Your task to perform on an android device: delete location history Image 0: 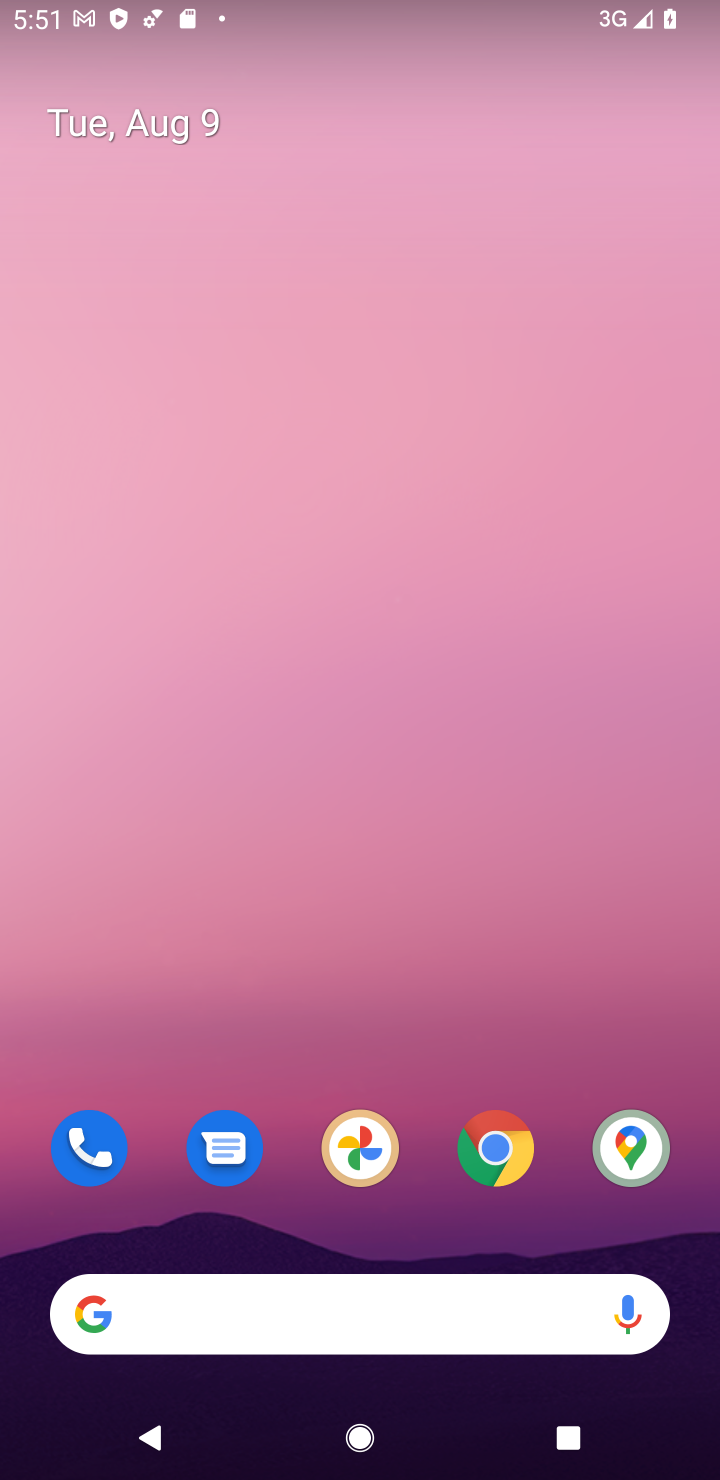
Step 0: drag from (415, 1251) to (446, 458)
Your task to perform on an android device: delete location history Image 1: 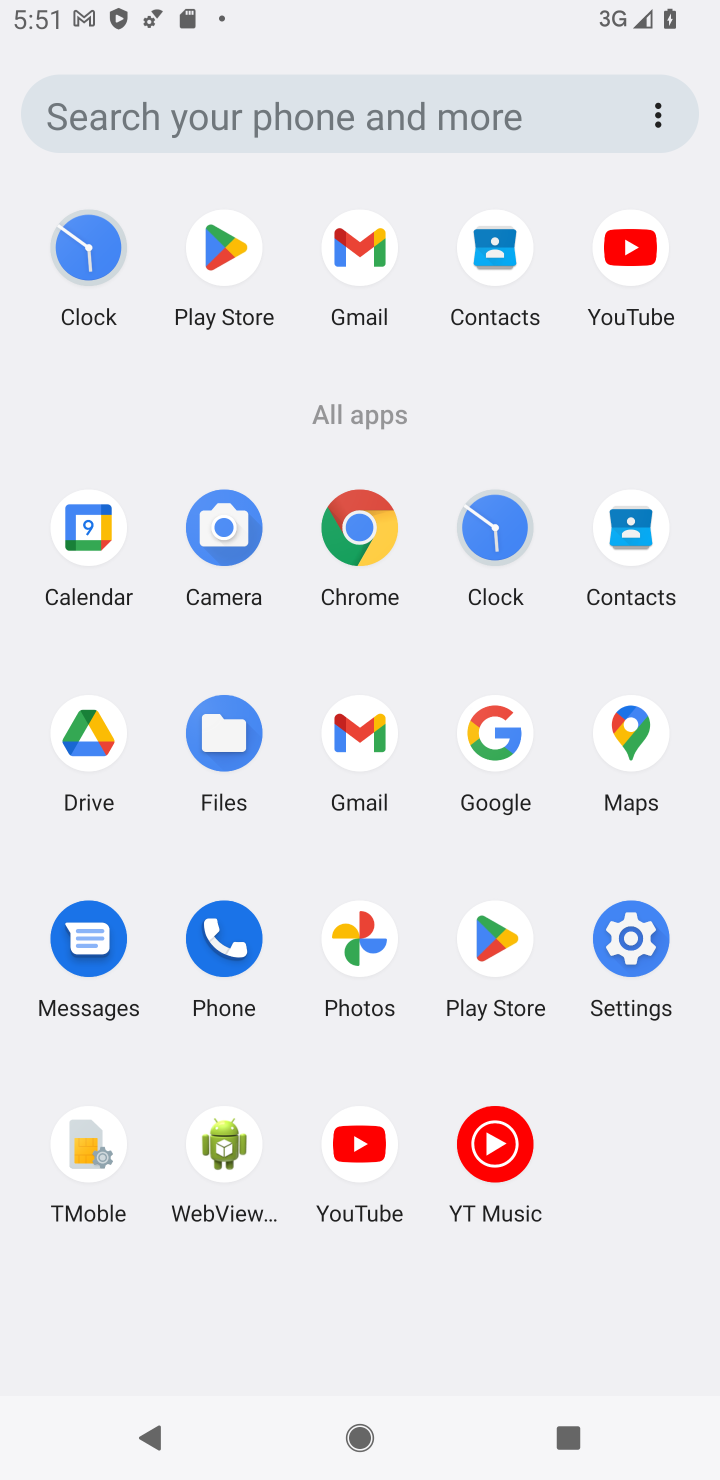
Step 1: click (608, 737)
Your task to perform on an android device: delete location history Image 2: 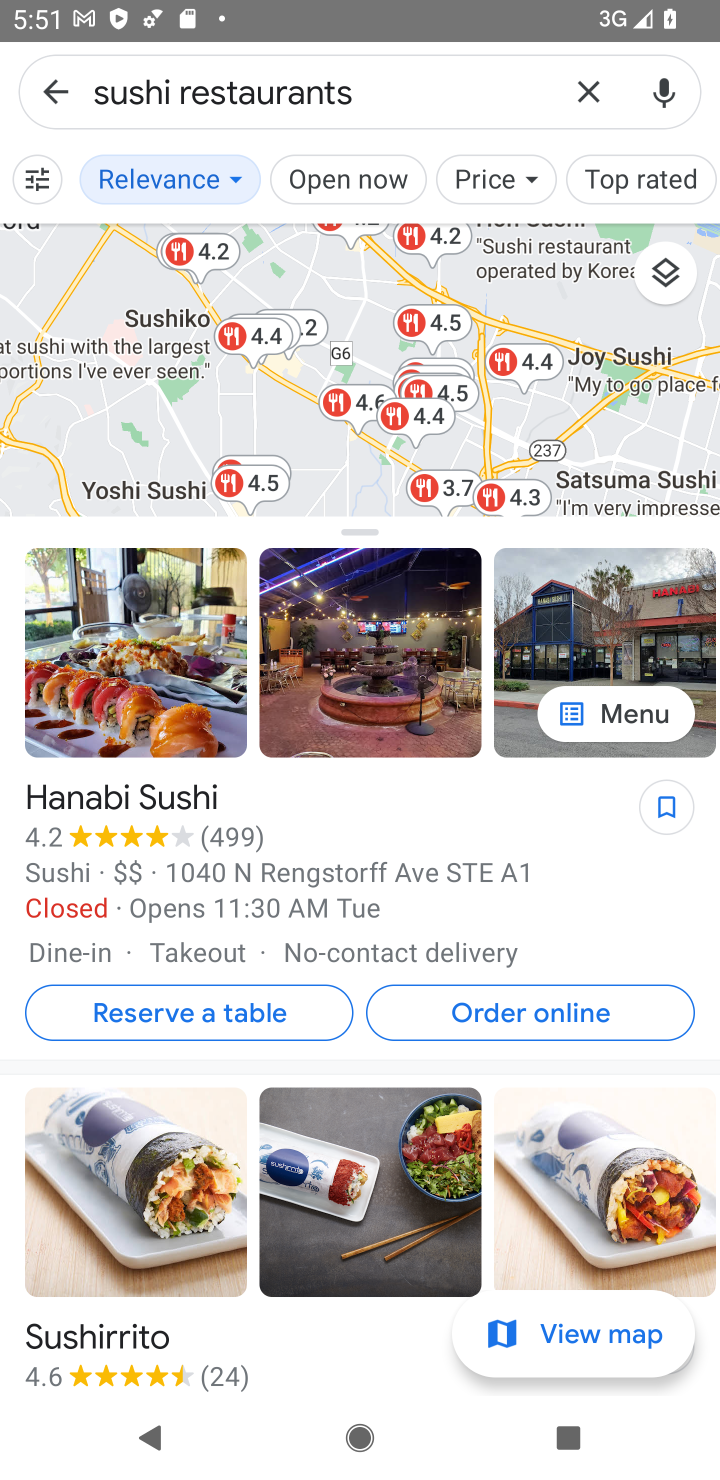
Step 2: click (52, 77)
Your task to perform on an android device: delete location history Image 3: 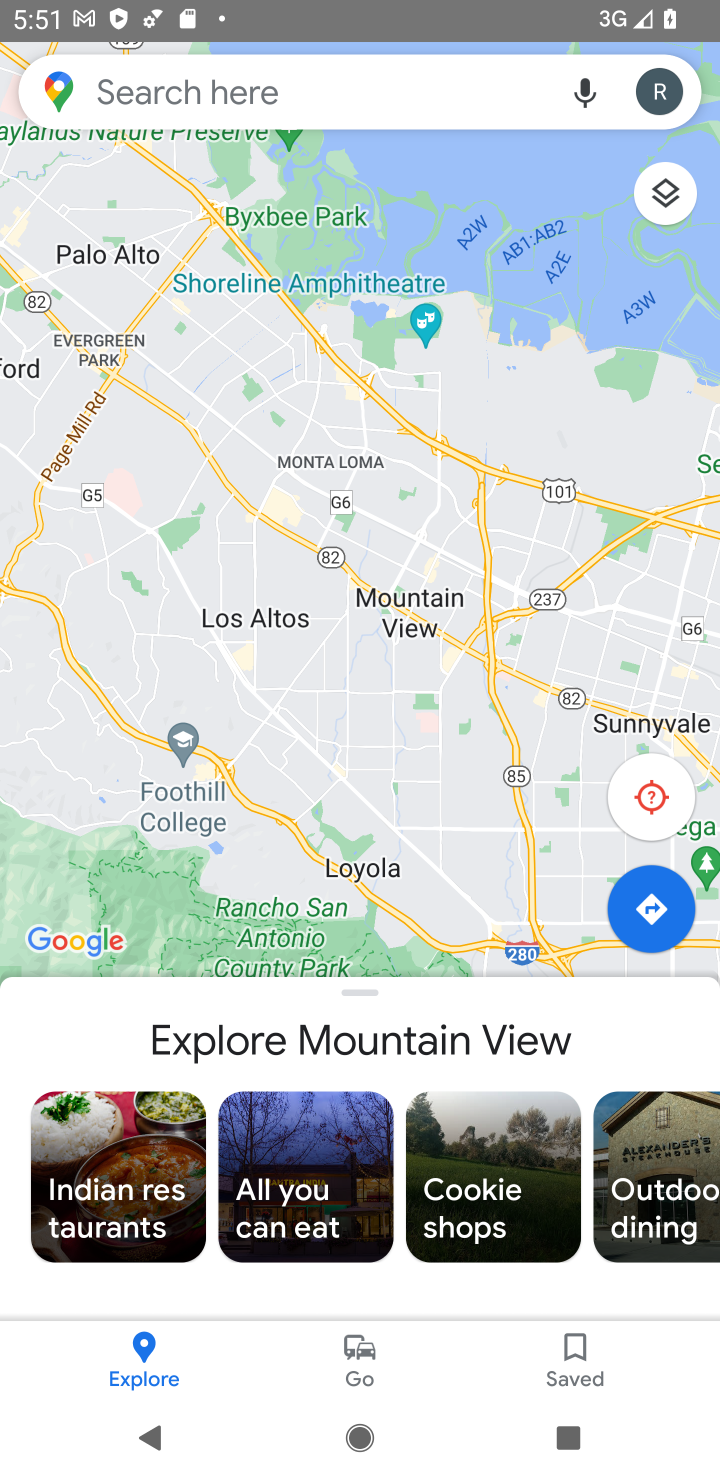
Step 3: click (346, 1352)
Your task to perform on an android device: delete location history Image 4: 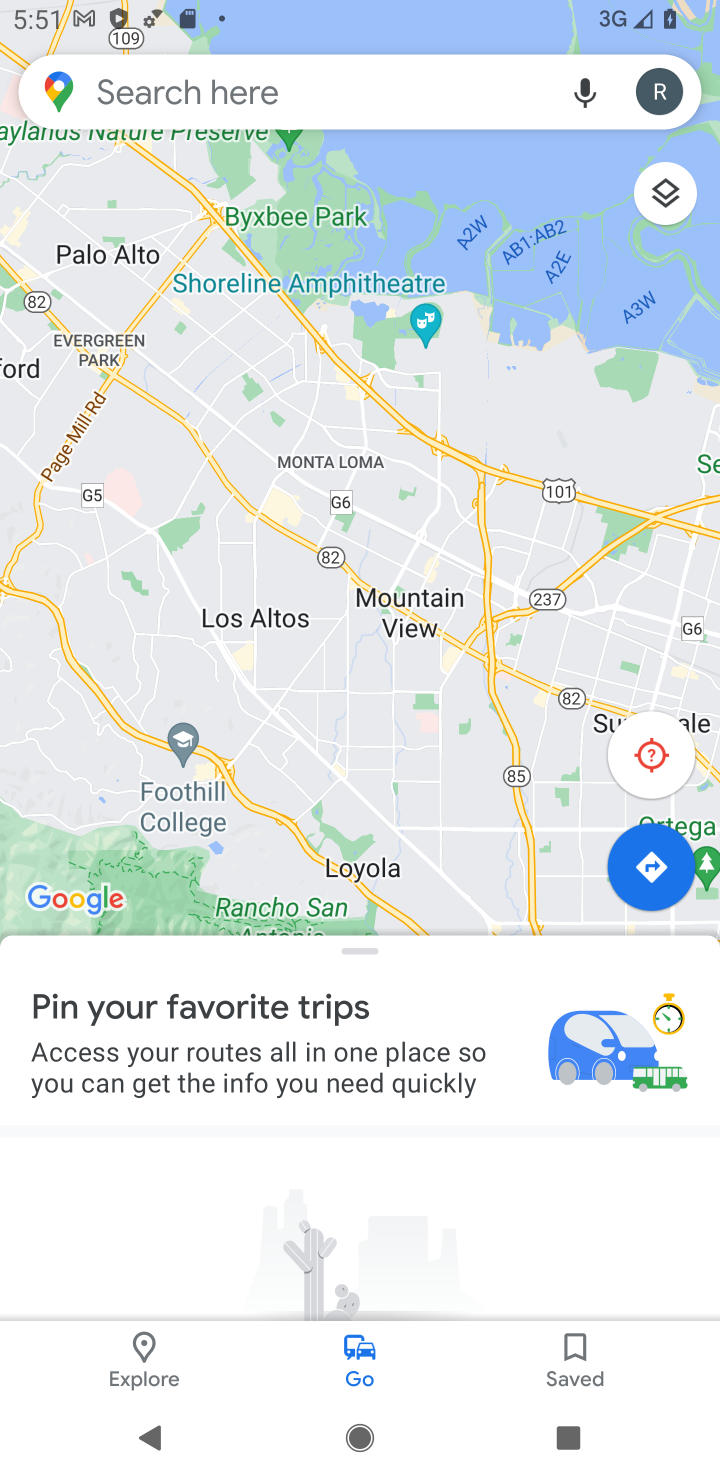
Step 4: drag from (348, 1131) to (384, 882)
Your task to perform on an android device: delete location history Image 5: 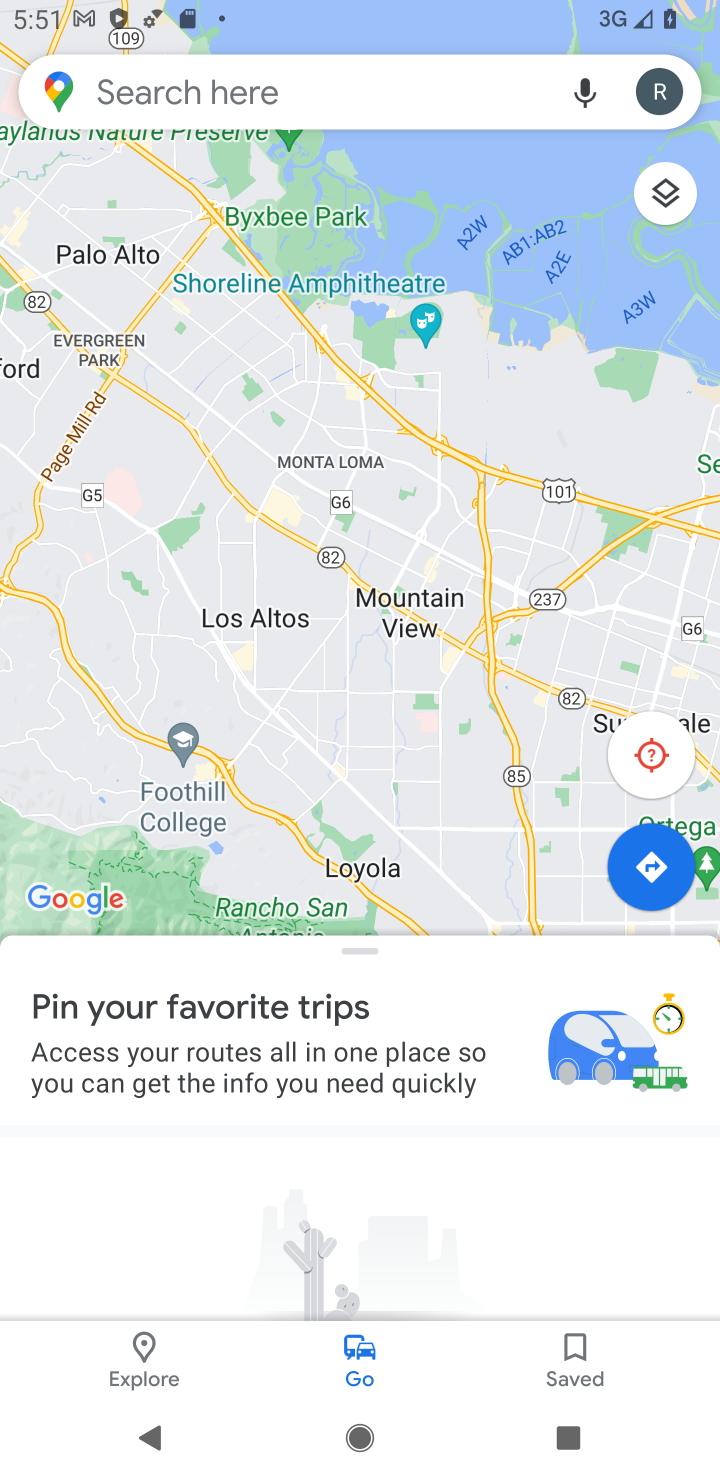
Step 5: click (582, 1355)
Your task to perform on an android device: delete location history Image 6: 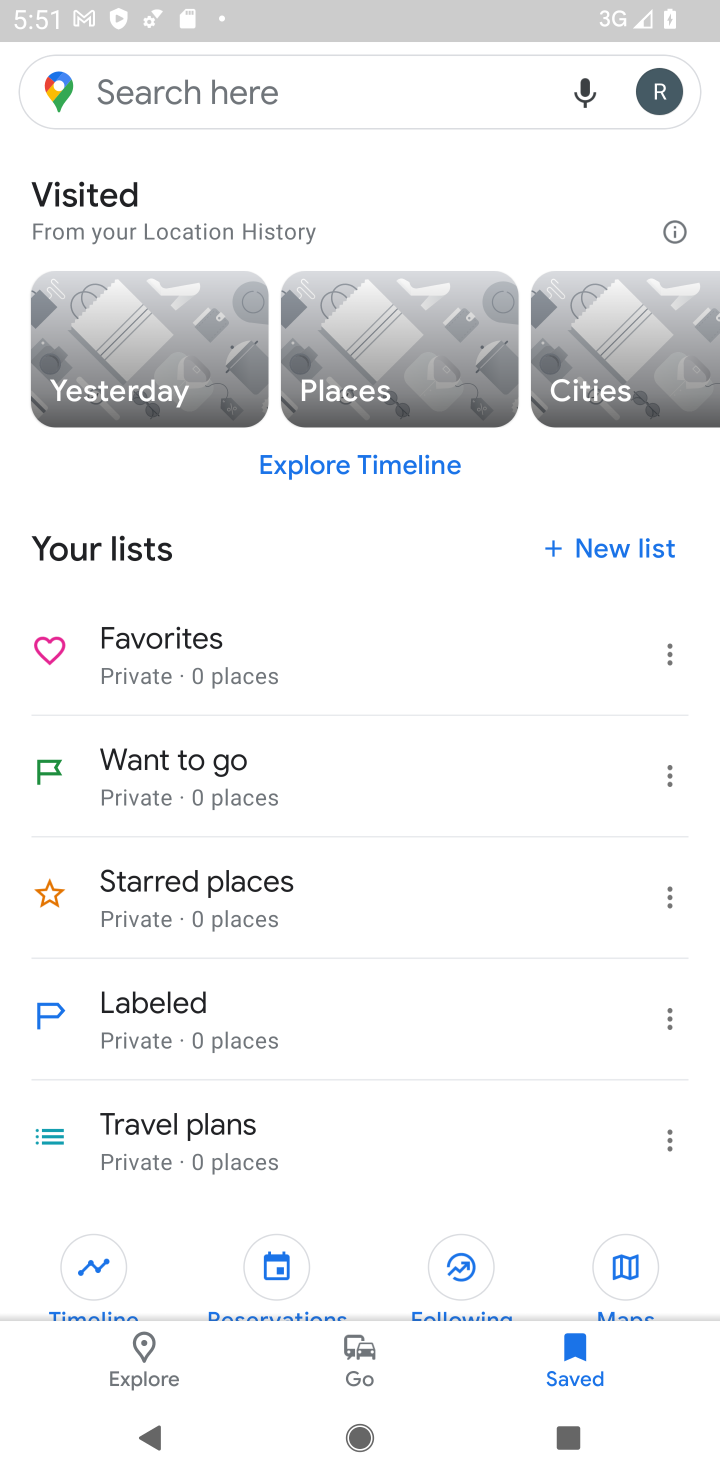
Step 6: drag from (314, 1068) to (332, 571)
Your task to perform on an android device: delete location history Image 7: 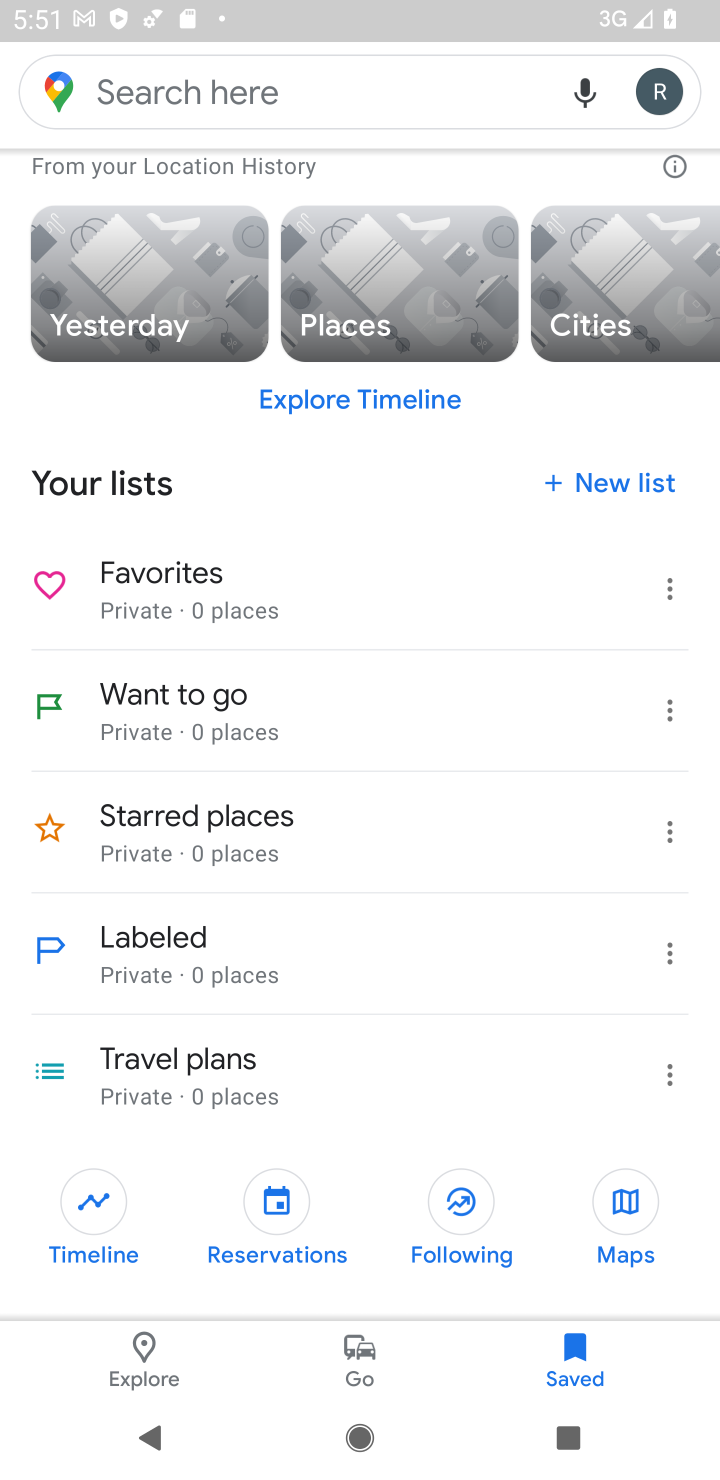
Step 7: click (77, 1219)
Your task to perform on an android device: delete location history Image 8: 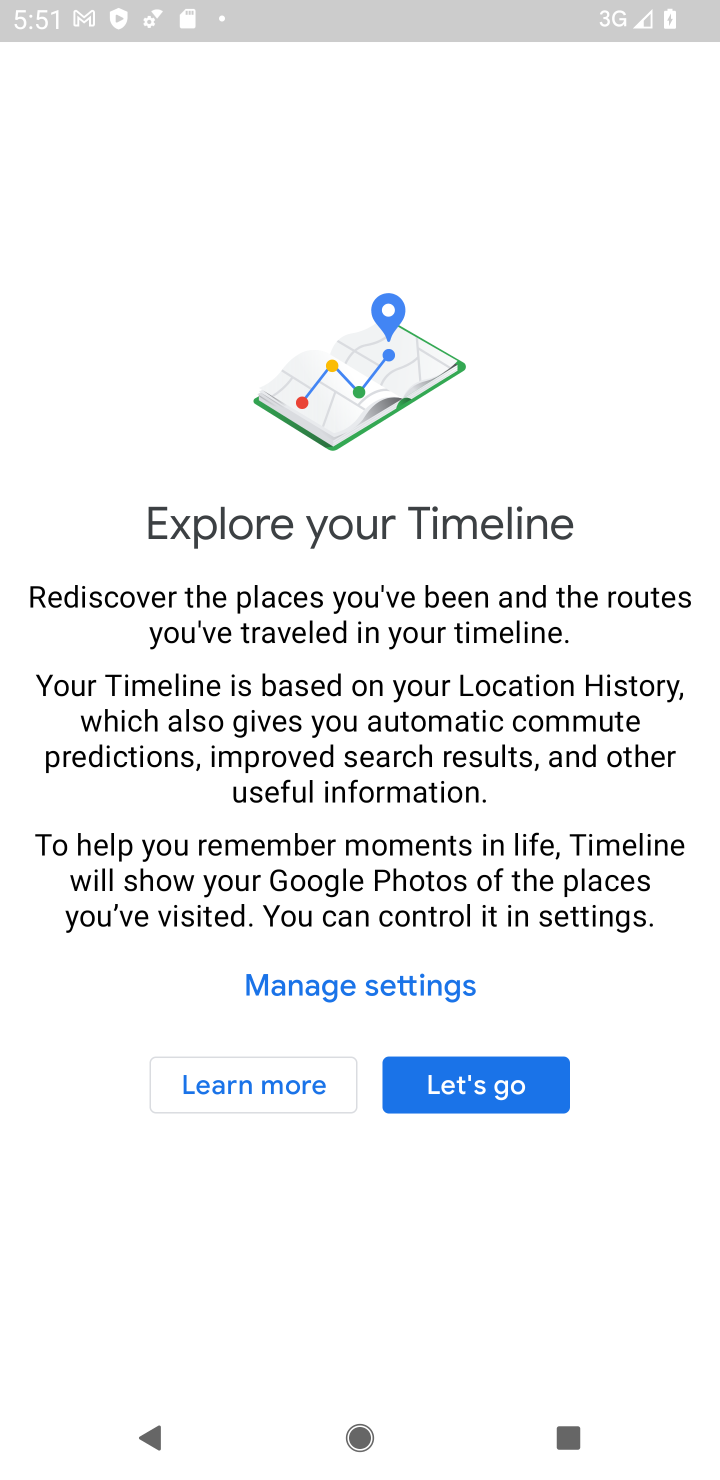
Step 8: click (471, 1096)
Your task to perform on an android device: delete location history Image 9: 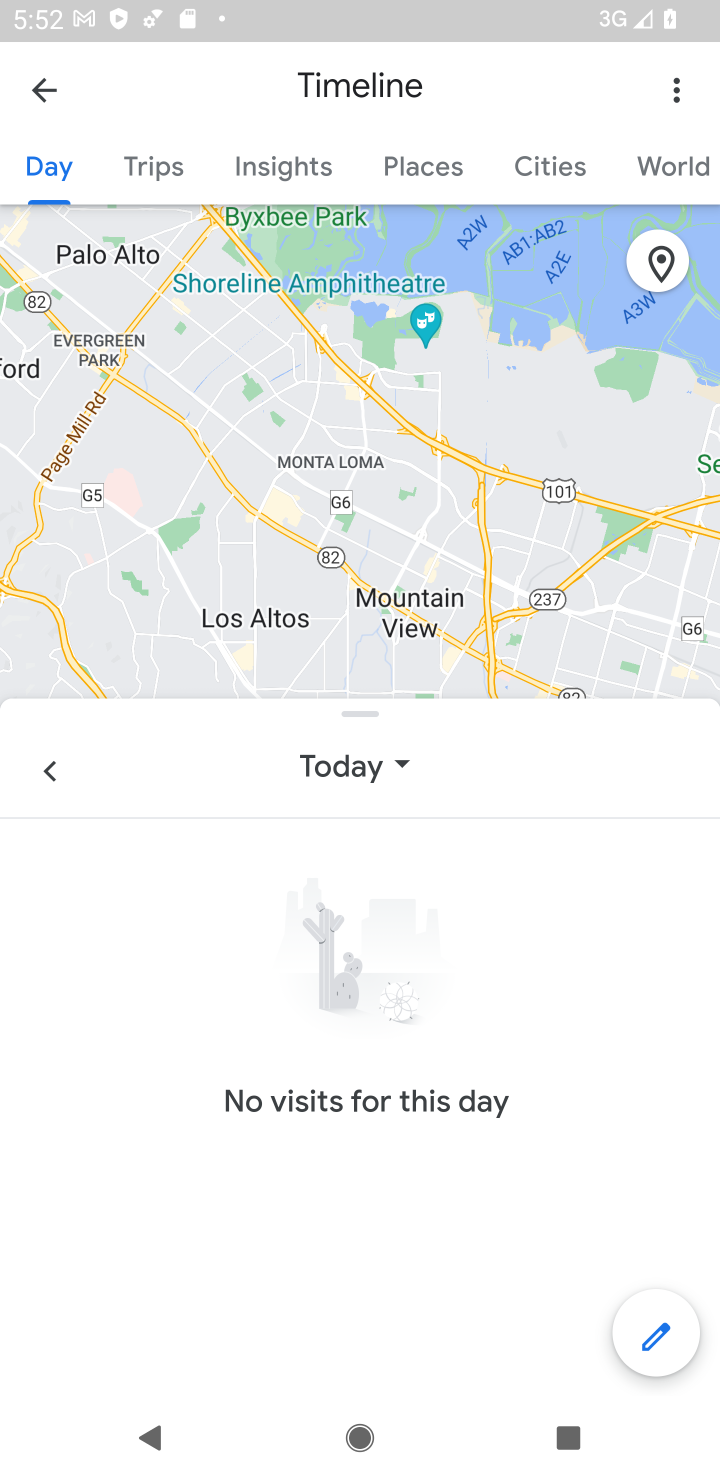
Step 9: click (671, 93)
Your task to perform on an android device: delete location history Image 10: 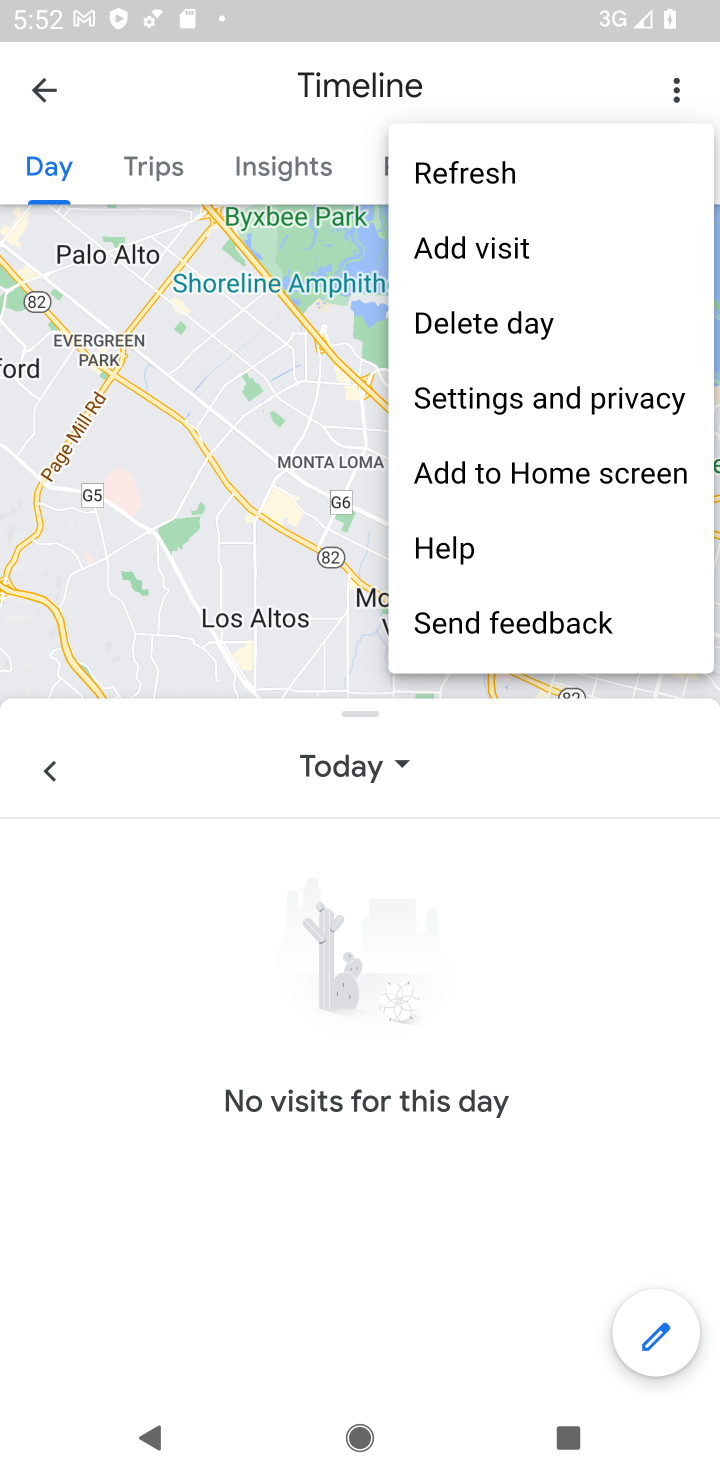
Step 10: click (513, 634)
Your task to perform on an android device: delete location history Image 11: 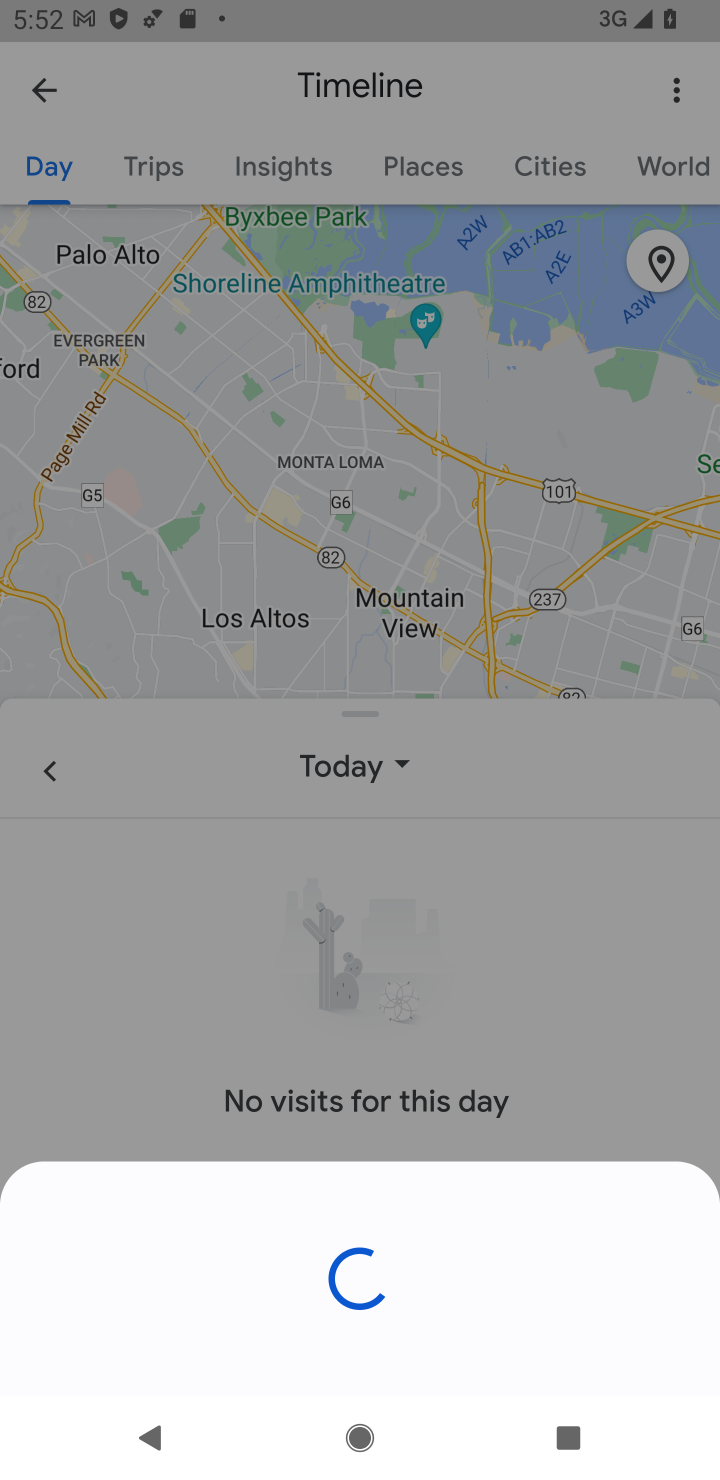
Step 11: click (56, 87)
Your task to perform on an android device: delete location history Image 12: 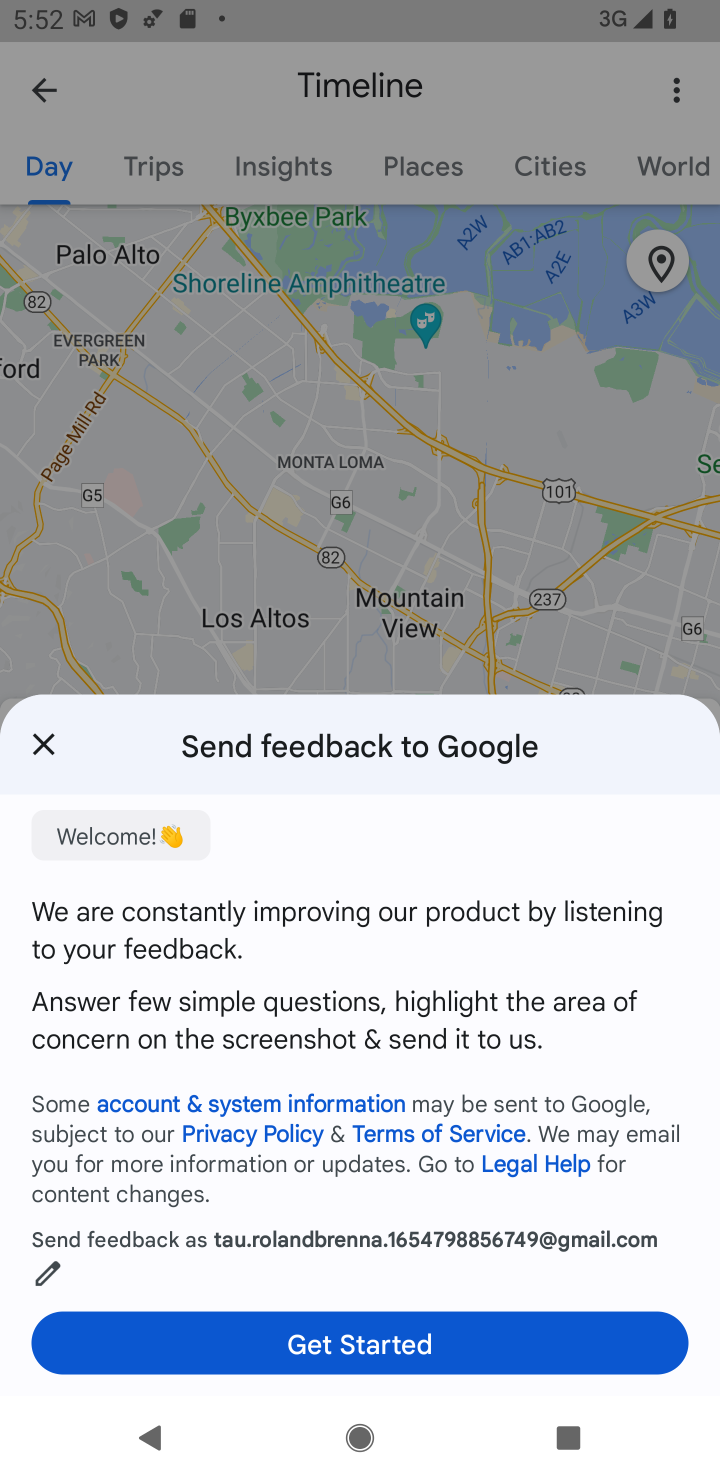
Step 12: click (28, 734)
Your task to perform on an android device: delete location history Image 13: 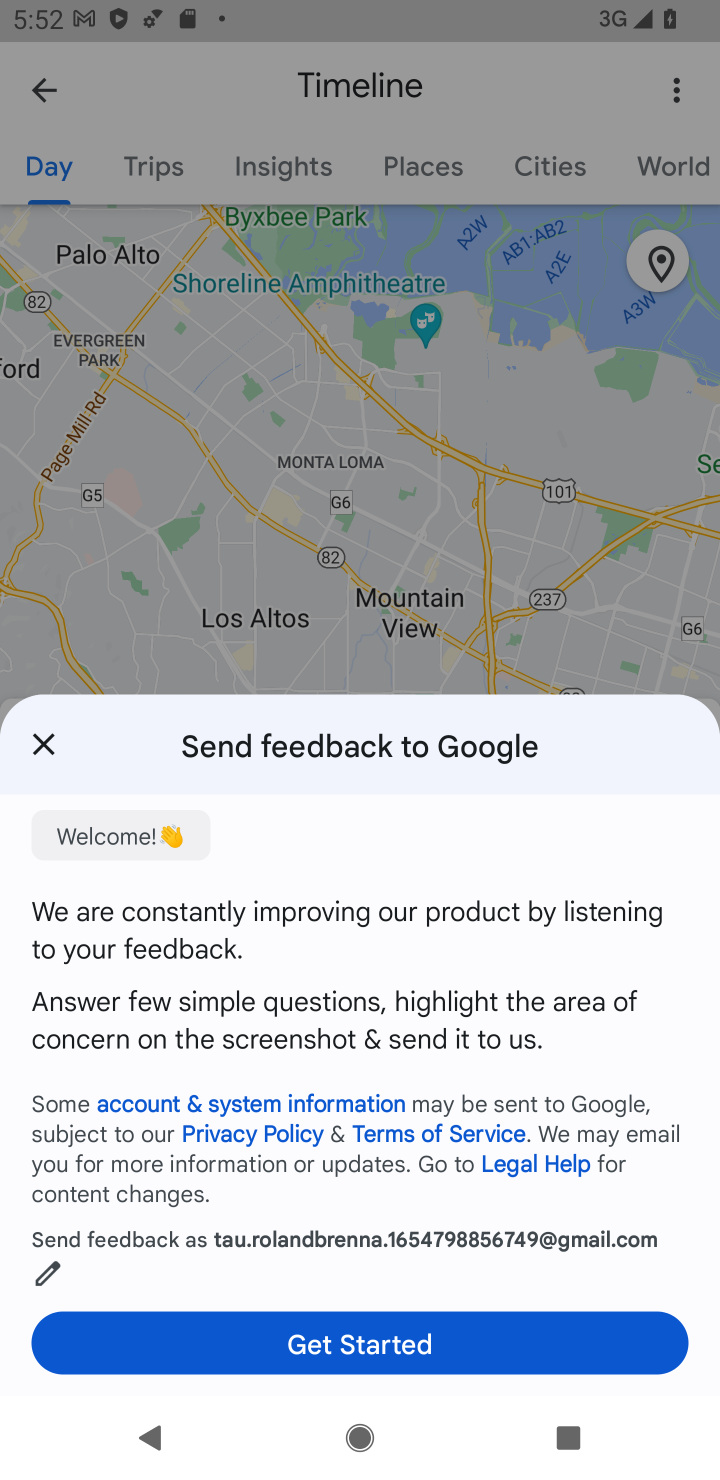
Step 13: click (46, 740)
Your task to perform on an android device: delete location history Image 14: 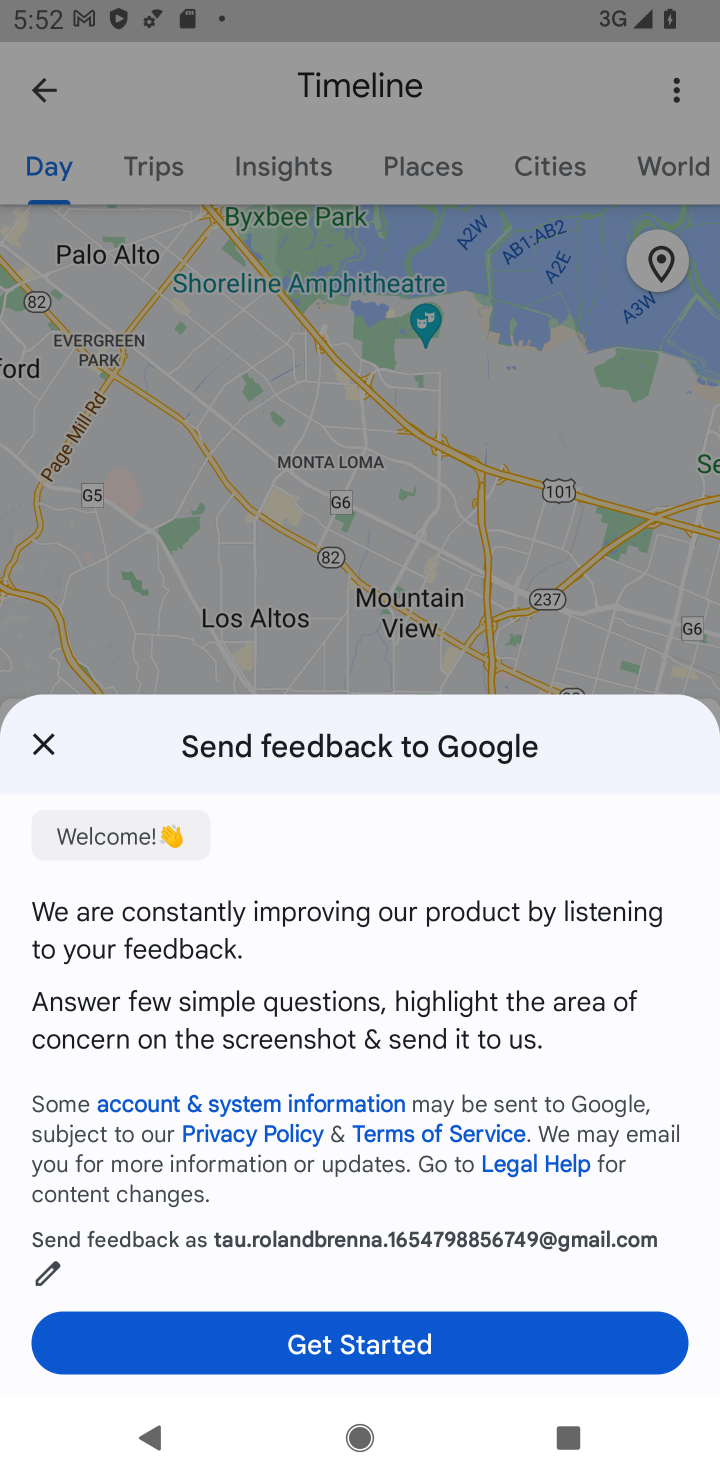
Step 14: press back button
Your task to perform on an android device: delete location history Image 15: 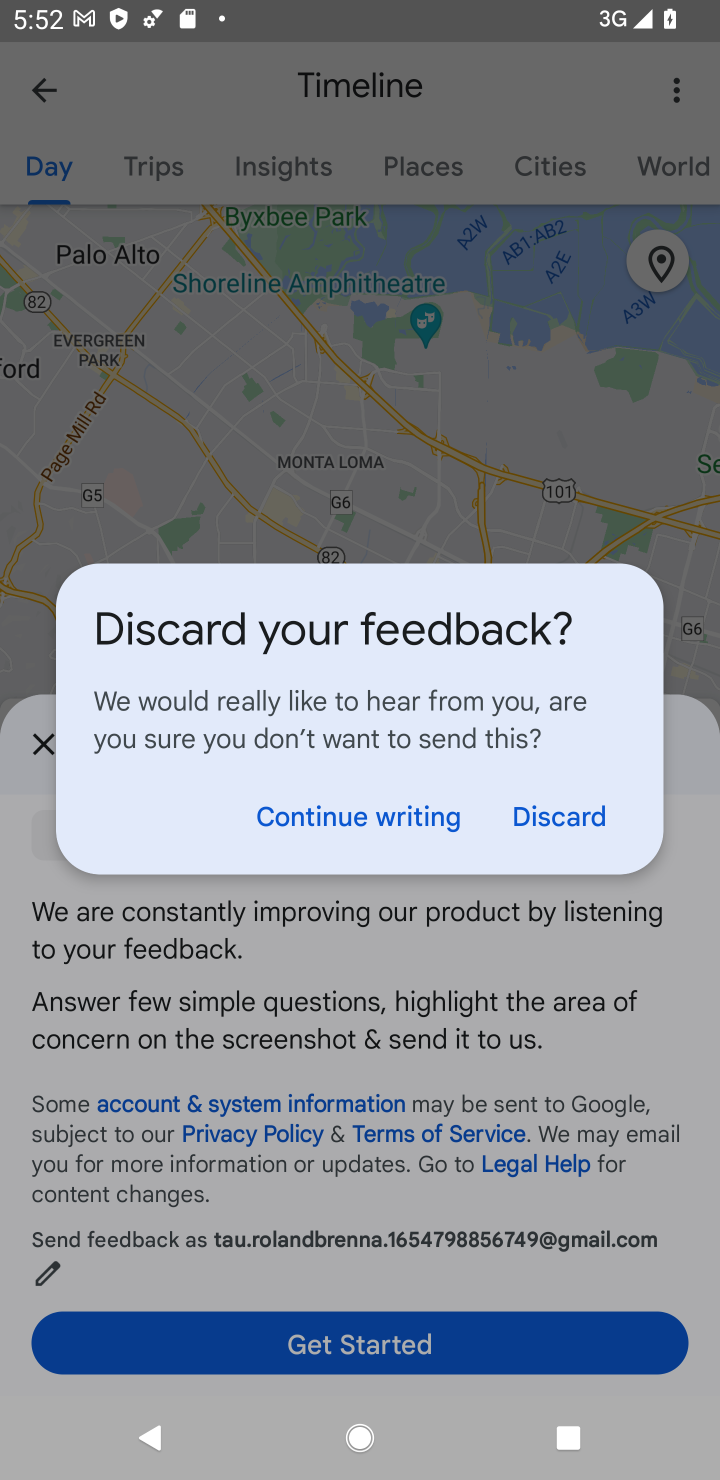
Step 15: click (563, 796)
Your task to perform on an android device: delete location history Image 16: 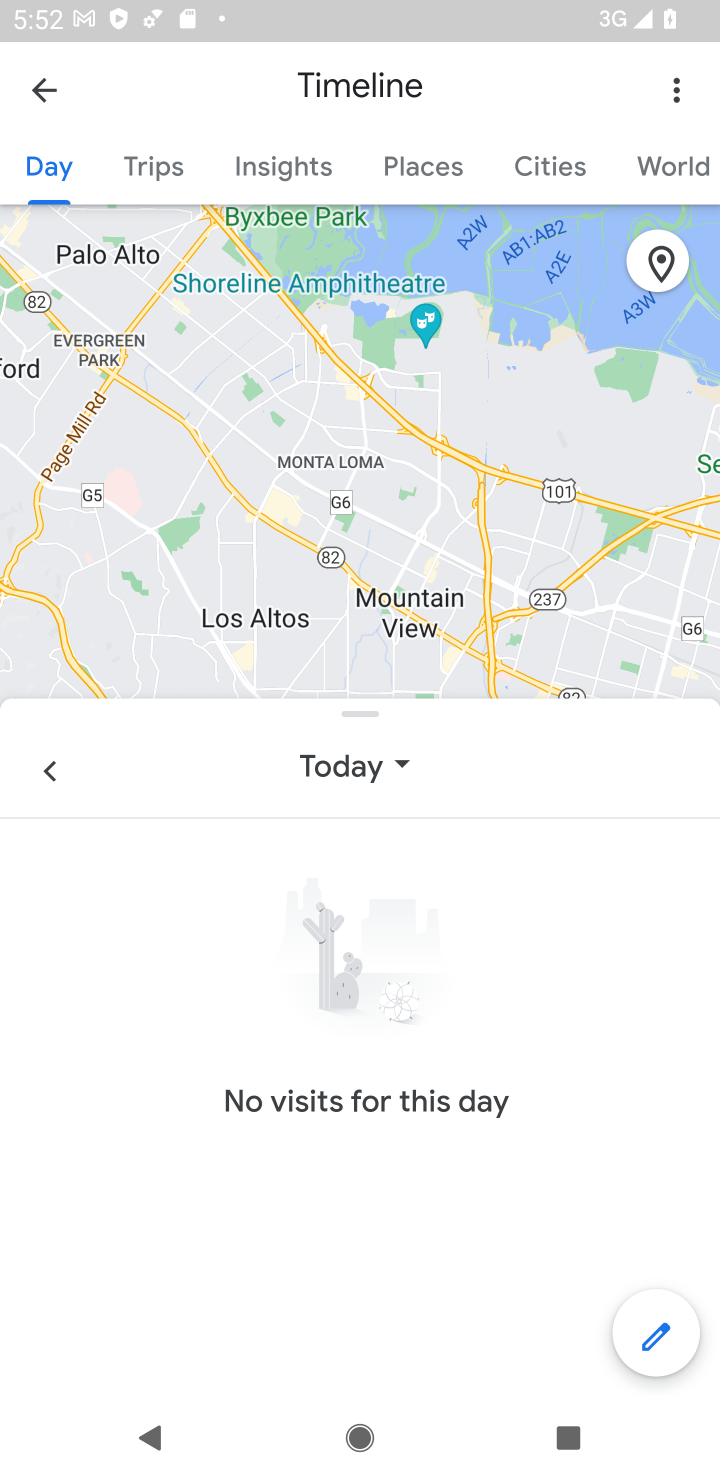
Step 16: click (669, 88)
Your task to perform on an android device: delete location history Image 17: 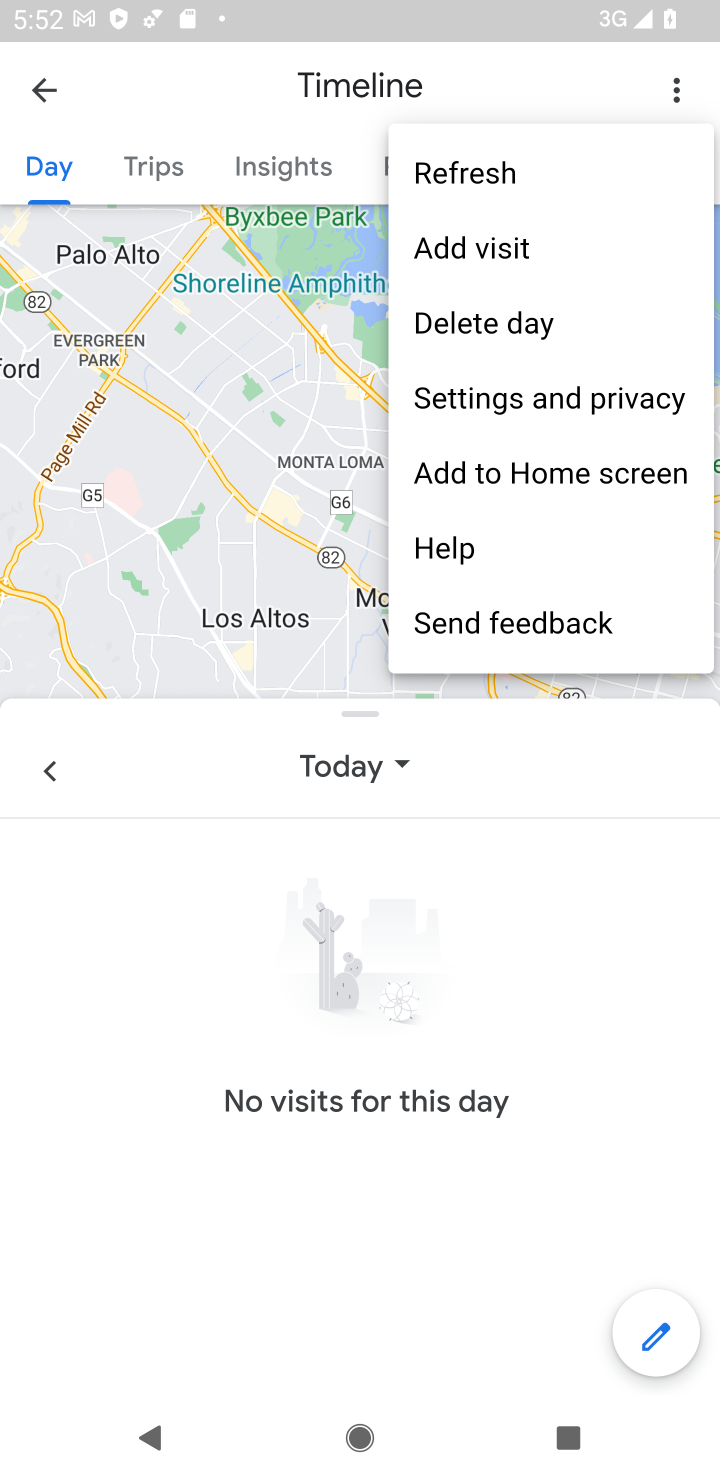
Step 17: click (545, 399)
Your task to perform on an android device: delete location history Image 18: 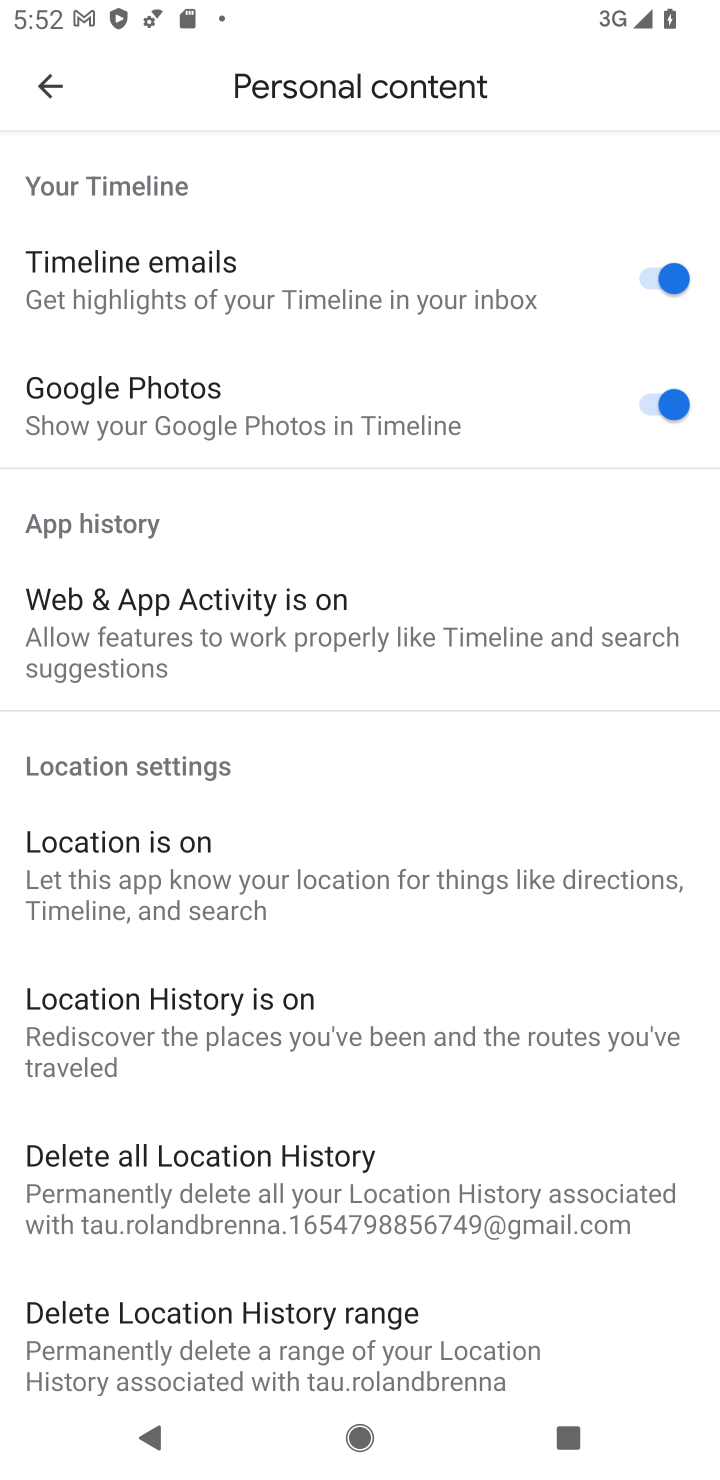
Step 18: click (252, 1205)
Your task to perform on an android device: delete location history Image 19: 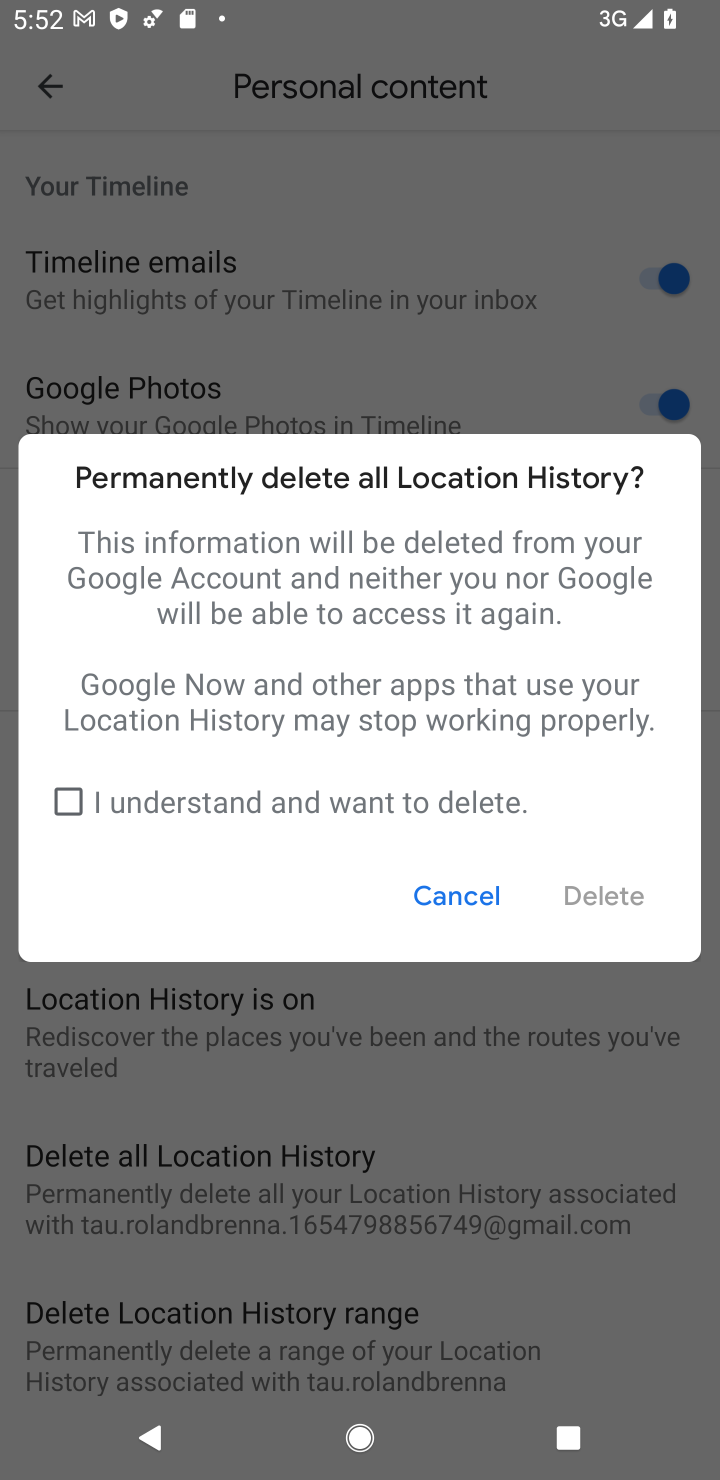
Step 19: click (110, 805)
Your task to perform on an android device: delete location history Image 20: 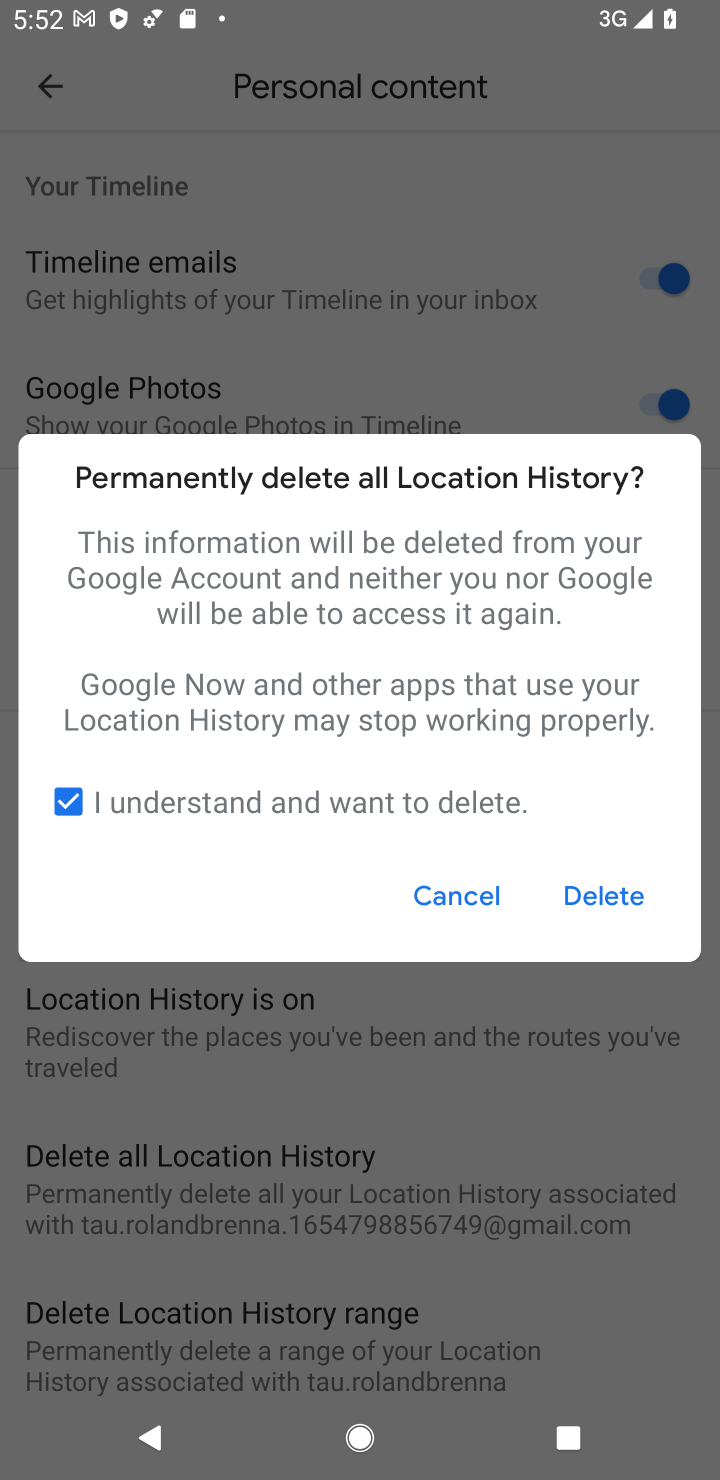
Step 20: click (604, 891)
Your task to perform on an android device: delete location history Image 21: 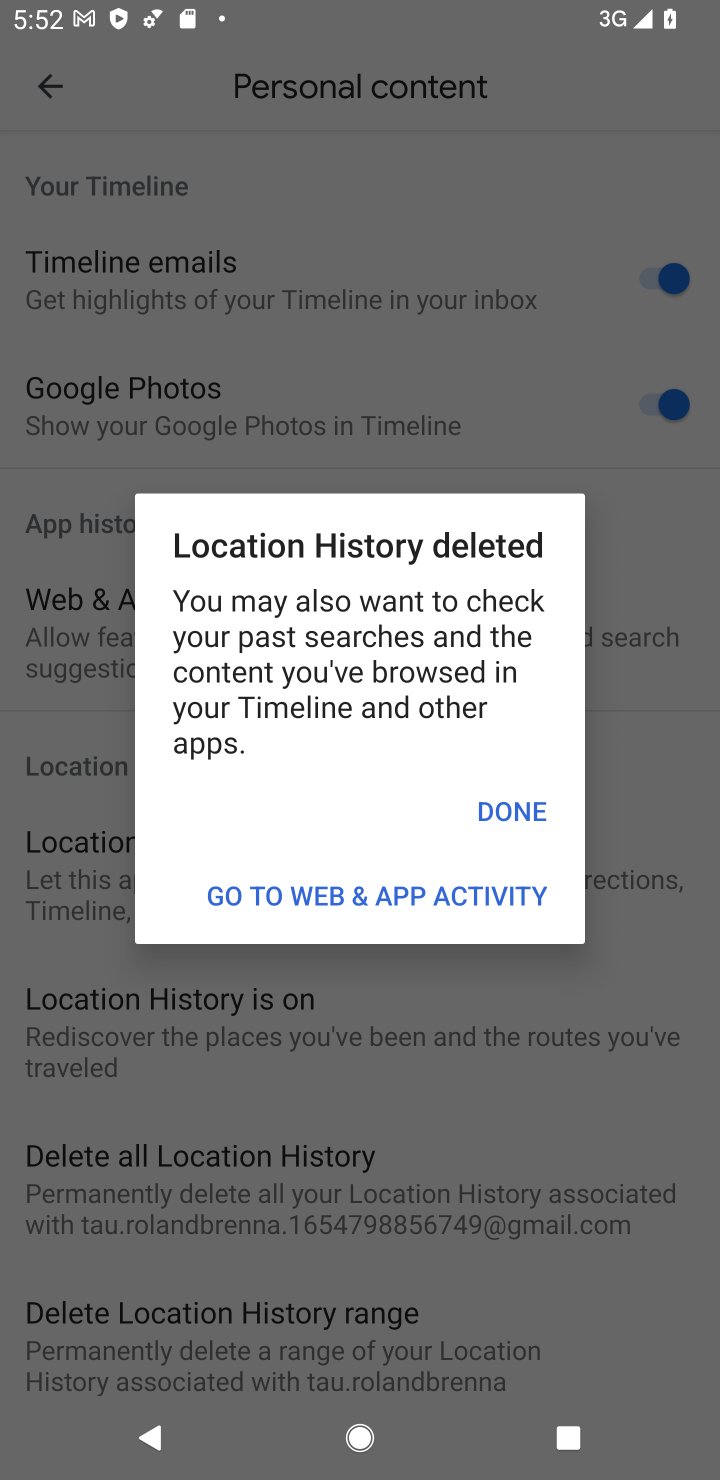
Step 21: click (502, 801)
Your task to perform on an android device: delete location history Image 22: 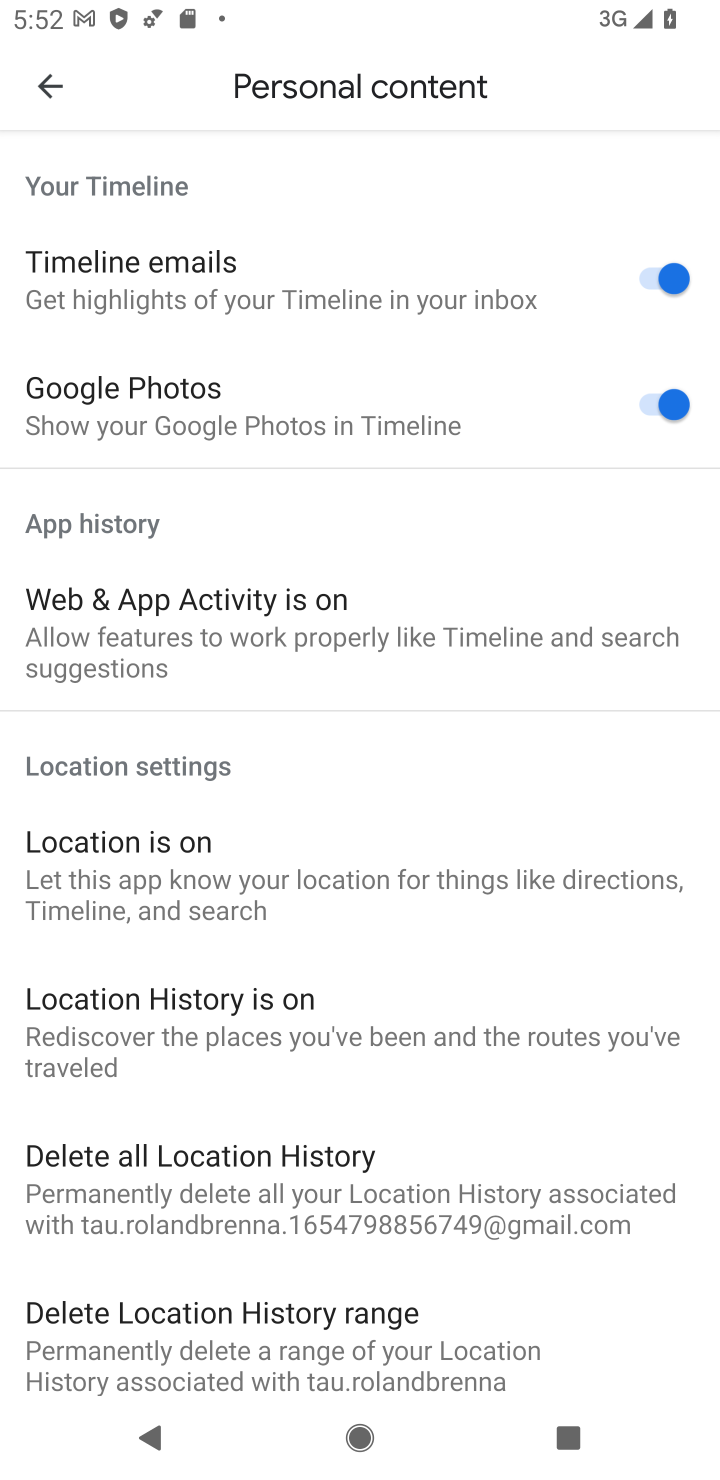
Step 22: task complete